Your task to perform on an android device: Go to network settings Image 0: 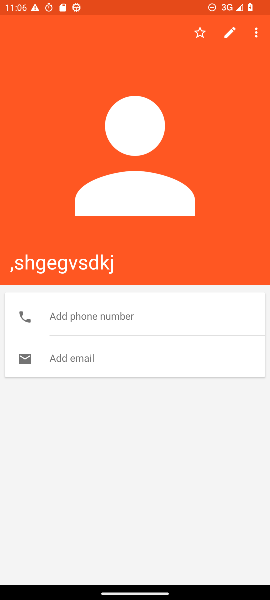
Step 0: press home button
Your task to perform on an android device: Go to network settings Image 1: 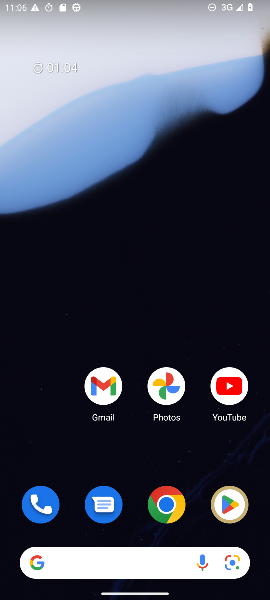
Step 1: drag from (126, 502) to (129, 53)
Your task to perform on an android device: Go to network settings Image 2: 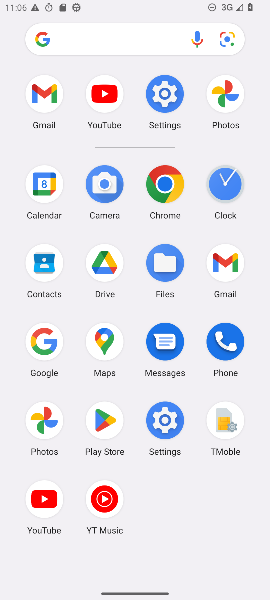
Step 2: click (173, 441)
Your task to perform on an android device: Go to network settings Image 3: 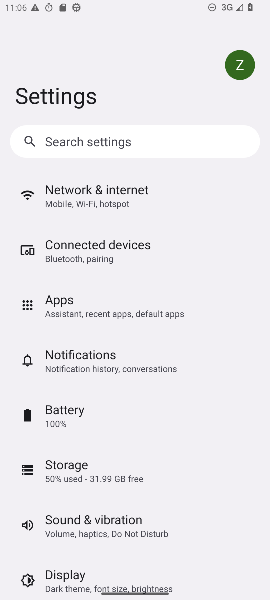
Step 3: click (138, 183)
Your task to perform on an android device: Go to network settings Image 4: 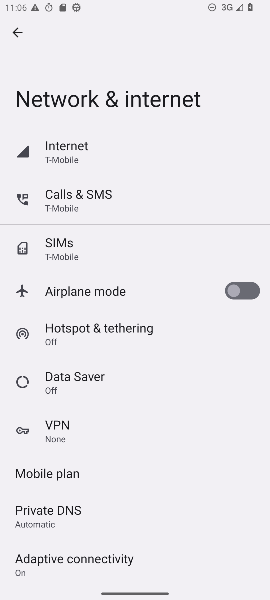
Step 4: task complete